Your task to perform on an android device: empty trash in the gmail app Image 0: 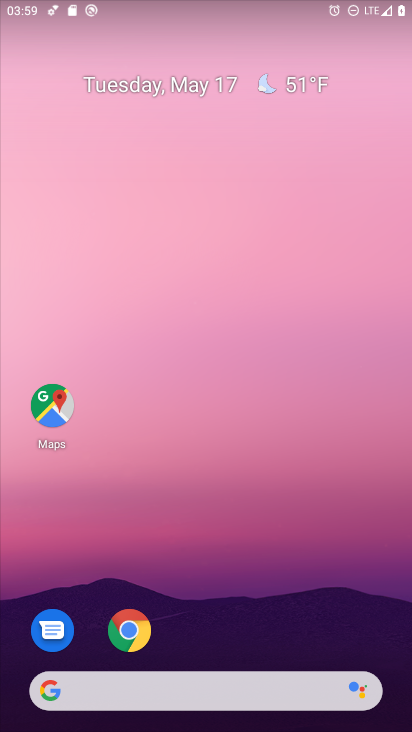
Step 0: drag from (200, 619) to (225, 135)
Your task to perform on an android device: empty trash in the gmail app Image 1: 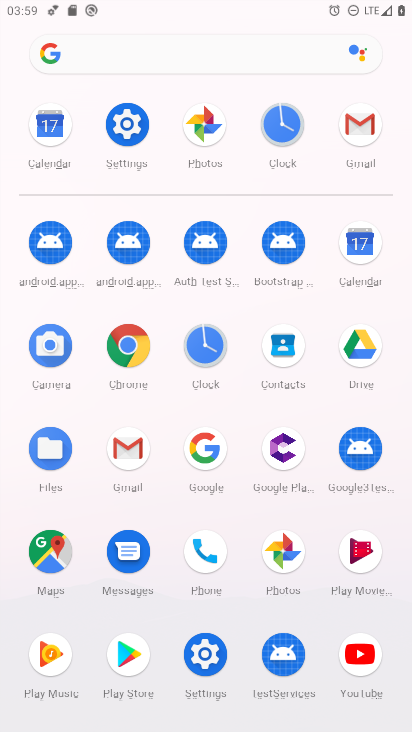
Step 1: click (357, 119)
Your task to perform on an android device: empty trash in the gmail app Image 2: 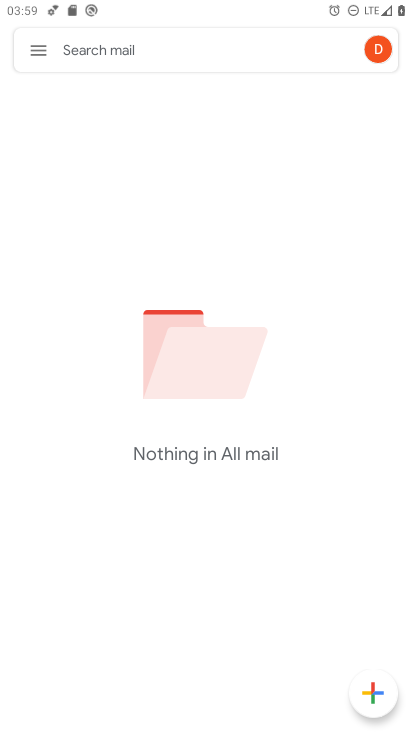
Step 2: click (32, 50)
Your task to perform on an android device: empty trash in the gmail app Image 3: 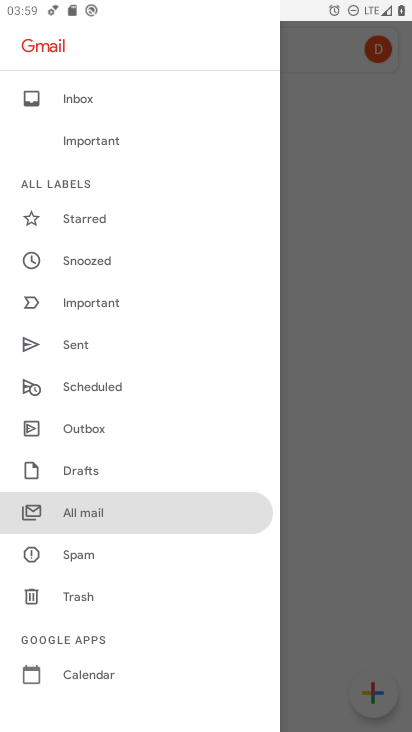
Step 3: click (73, 591)
Your task to perform on an android device: empty trash in the gmail app Image 4: 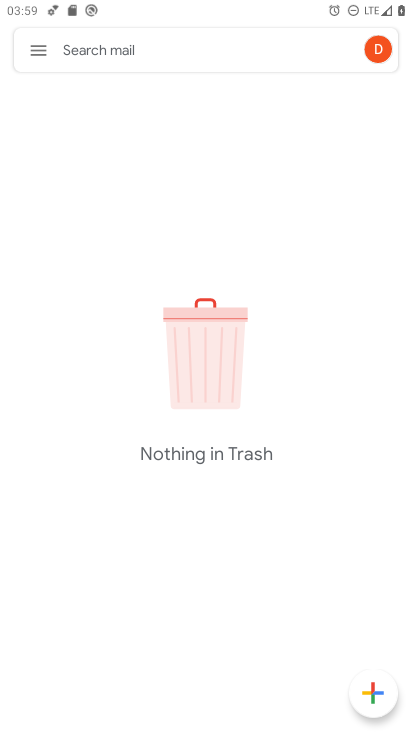
Step 4: task complete